Your task to perform on an android device: check google app version Image 0: 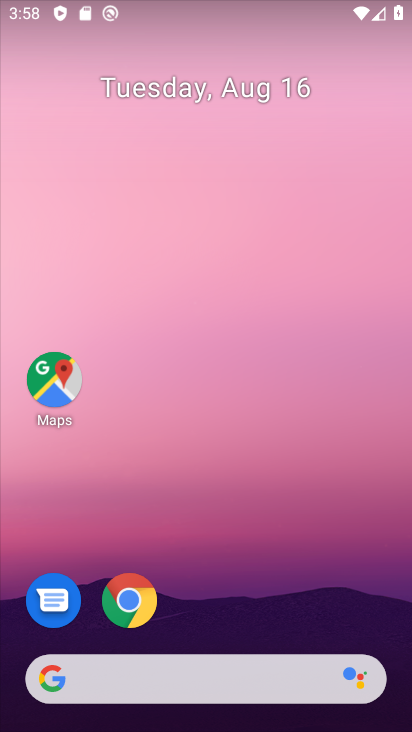
Step 0: drag from (228, 615) to (232, 328)
Your task to perform on an android device: check google app version Image 1: 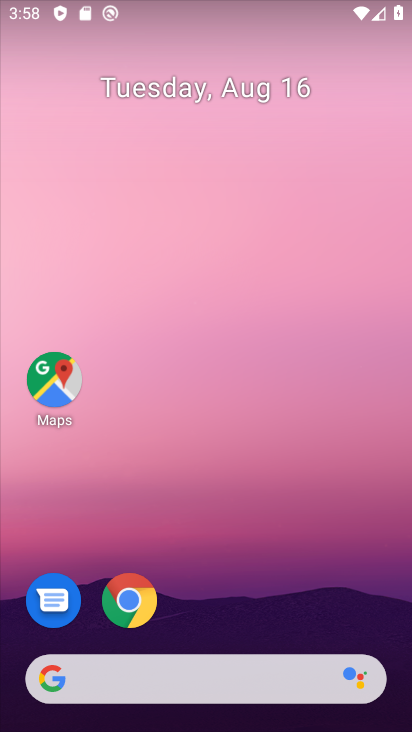
Step 1: drag from (211, 613) to (228, 129)
Your task to perform on an android device: check google app version Image 2: 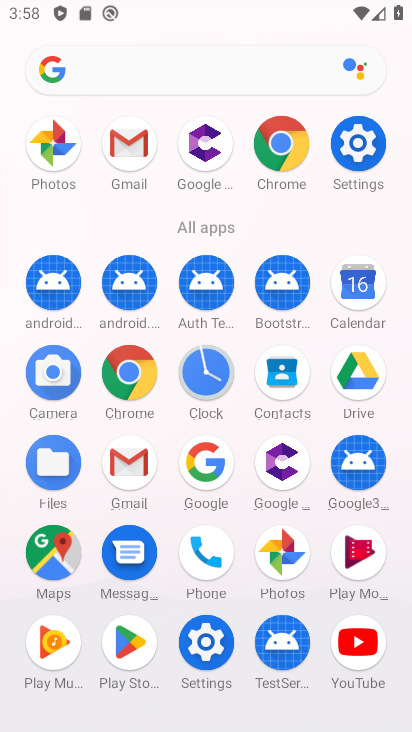
Step 2: drag from (208, 397) to (233, 6)
Your task to perform on an android device: check google app version Image 3: 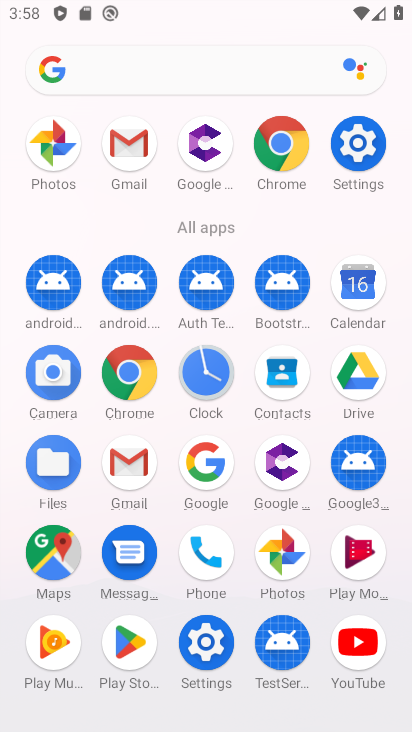
Step 3: click (129, 469)
Your task to perform on an android device: check google app version Image 4: 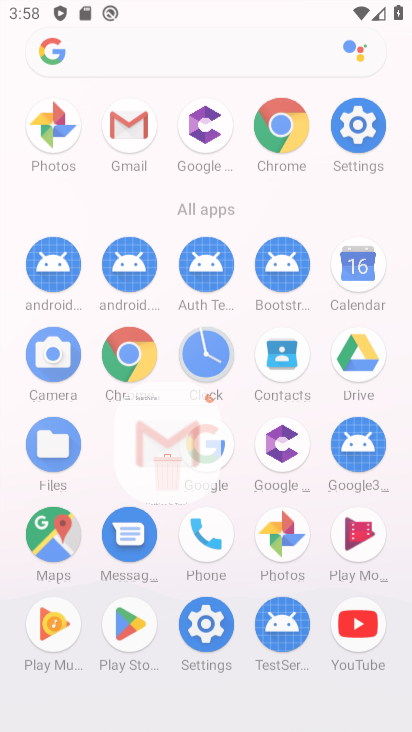
Step 4: click (46, 60)
Your task to perform on an android device: check google app version Image 5: 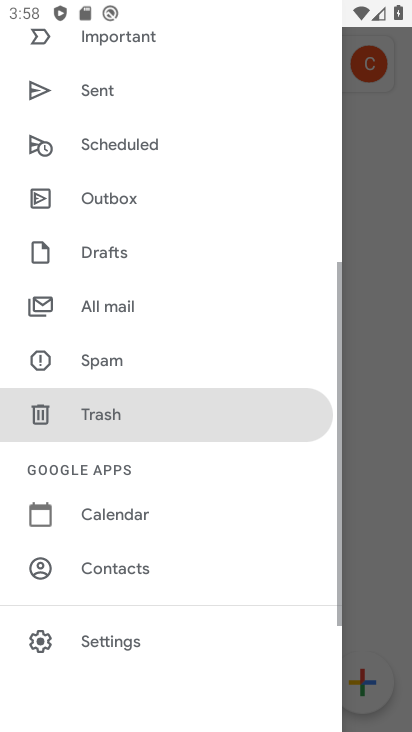
Step 5: click (62, 58)
Your task to perform on an android device: check google app version Image 6: 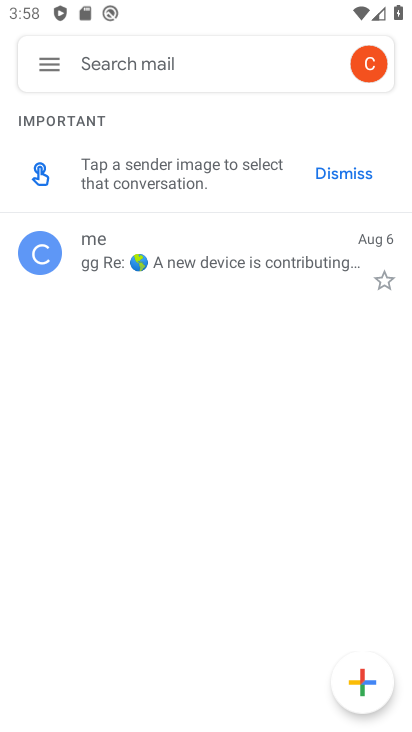
Step 6: press home button
Your task to perform on an android device: check google app version Image 7: 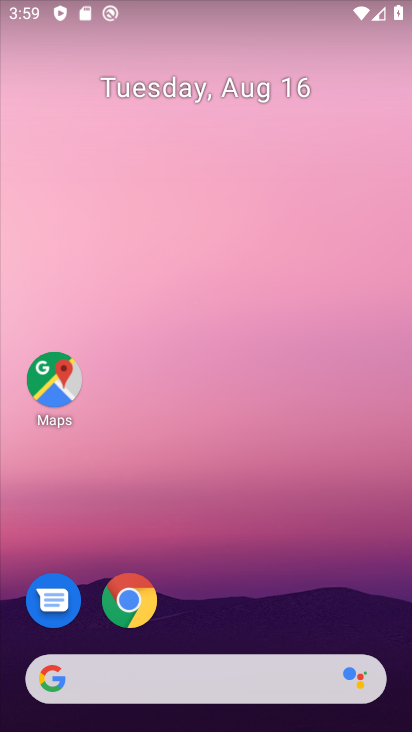
Step 7: click (48, 675)
Your task to perform on an android device: check google app version Image 8: 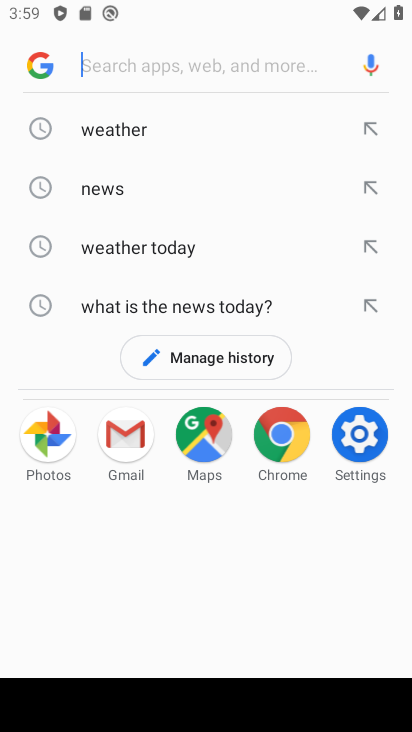
Step 8: click (36, 56)
Your task to perform on an android device: check google app version Image 9: 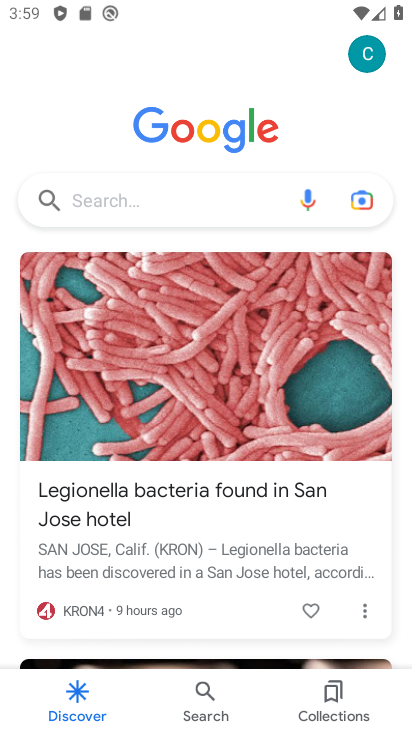
Step 9: click (368, 49)
Your task to perform on an android device: check google app version Image 10: 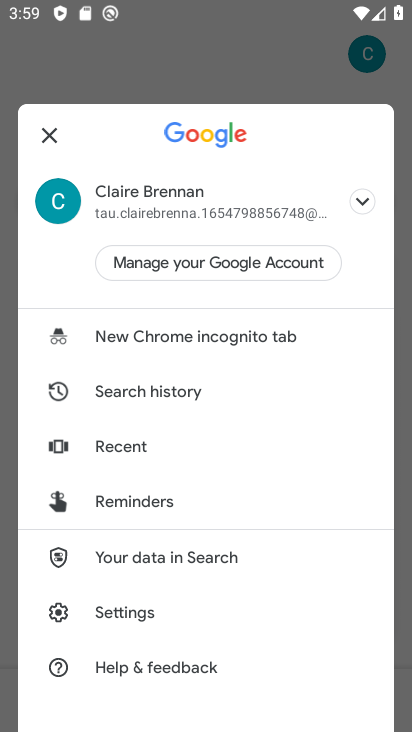
Step 10: click (127, 610)
Your task to perform on an android device: check google app version Image 11: 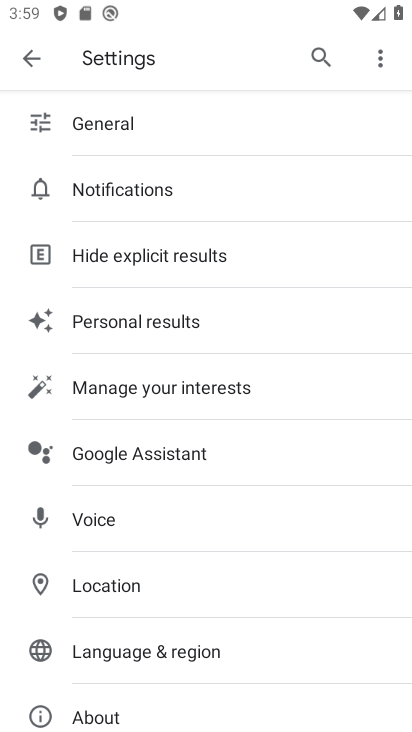
Step 11: drag from (128, 559) to (137, 307)
Your task to perform on an android device: check google app version Image 12: 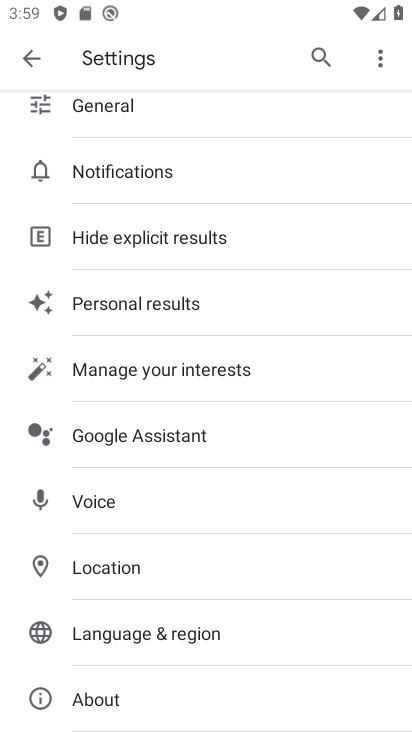
Step 12: click (129, 702)
Your task to perform on an android device: check google app version Image 13: 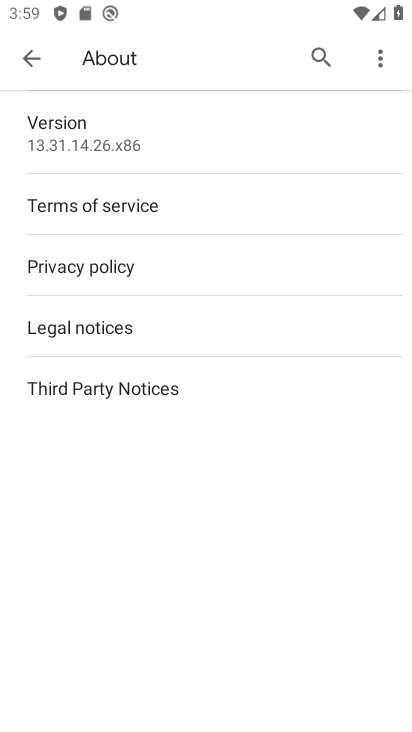
Step 13: task complete